Your task to perform on an android device: open chrome privacy settings Image 0: 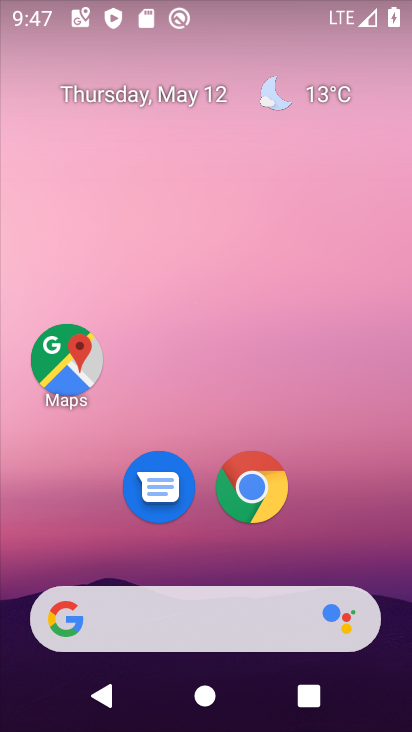
Step 0: click (262, 490)
Your task to perform on an android device: open chrome privacy settings Image 1: 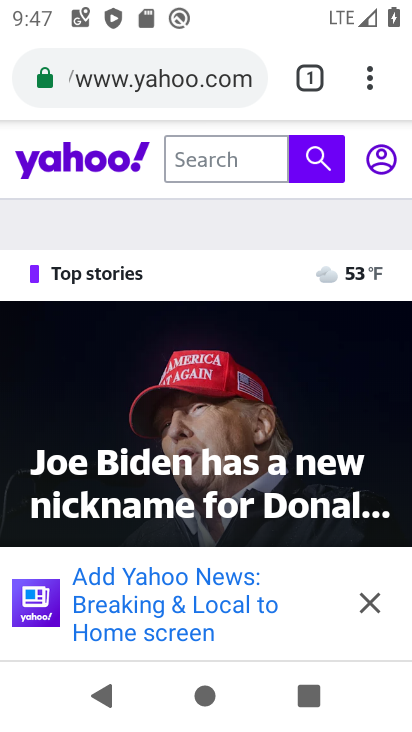
Step 1: click (370, 87)
Your task to perform on an android device: open chrome privacy settings Image 2: 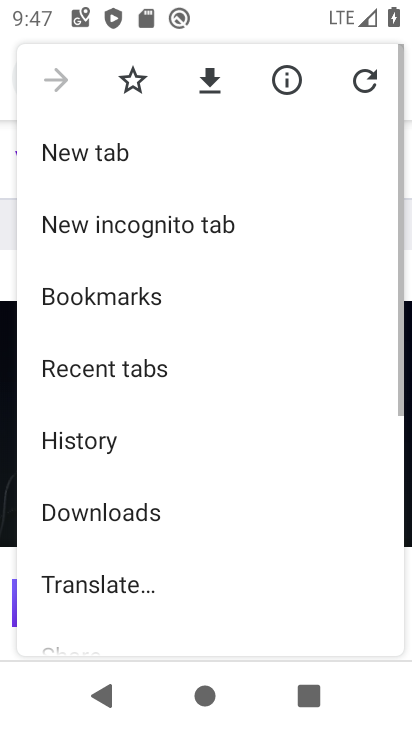
Step 2: drag from (183, 489) to (201, 163)
Your task to perform on an android device: open chrome privacy settings Image 3: 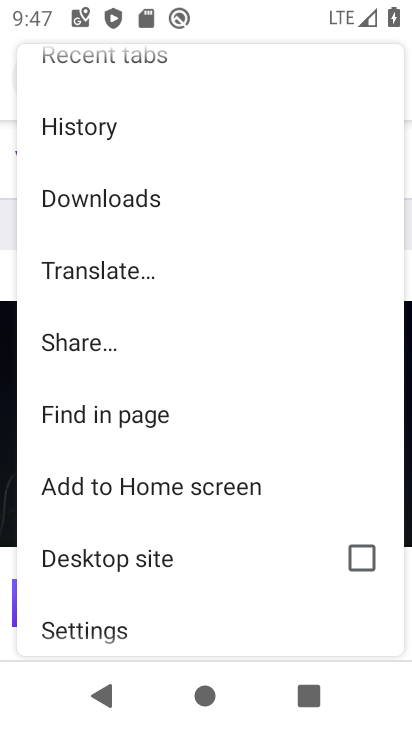
Step 3: drag from (192, 565) to (210, 268)
Your task to perform on an android device: open chrome privacy settings Image 4: 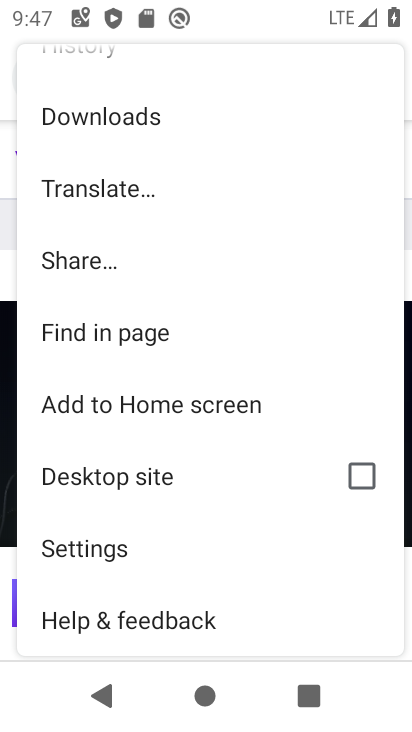
Step 4: click (84, 552)
Your task to perform on an android device: open chrome privacy settings Image 5: 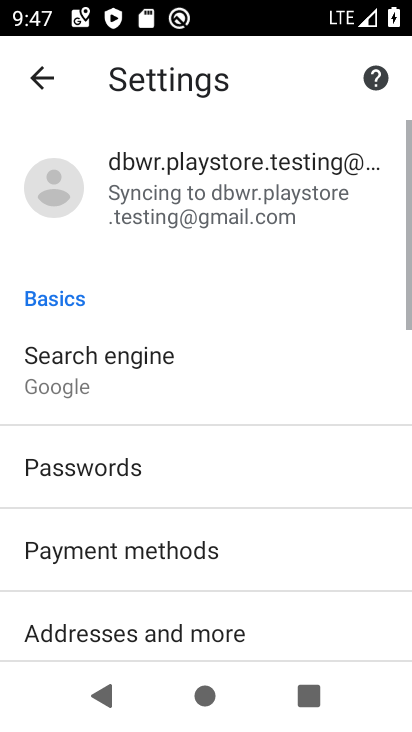
Step 5: drag from (183, 524) to (229, 58)
Your task to perform on an android device: open chrome privacy settings Image 6: 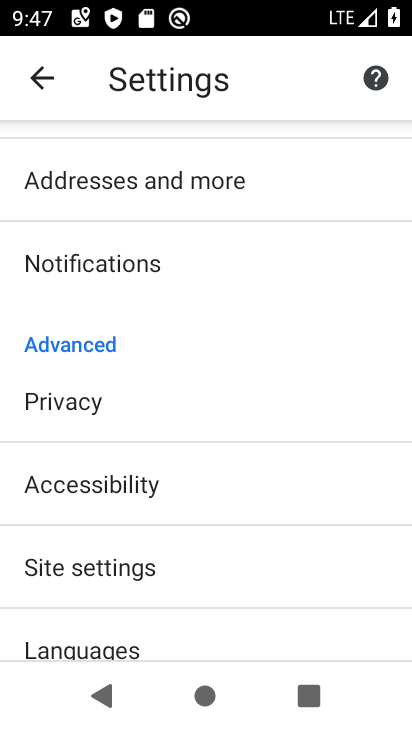
Step 6: click (59, 409)
Your task to perform on an android device: open chrome privacy settings Image 7: 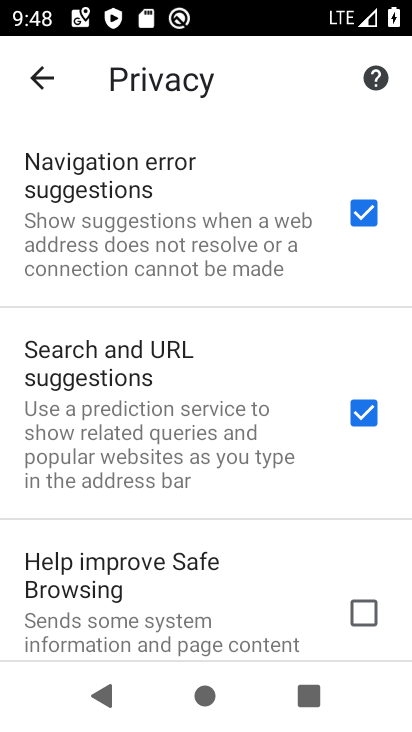
Step 7: task complete